Your task to perform on an android device: Check out the new nike air max 2020. Image 0: 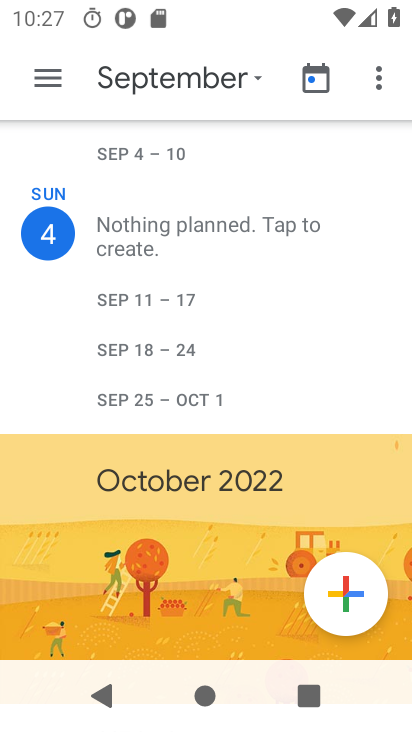
Step 0: task complete